Your task to perform on an android device: change the upload size in google photos Image 0: 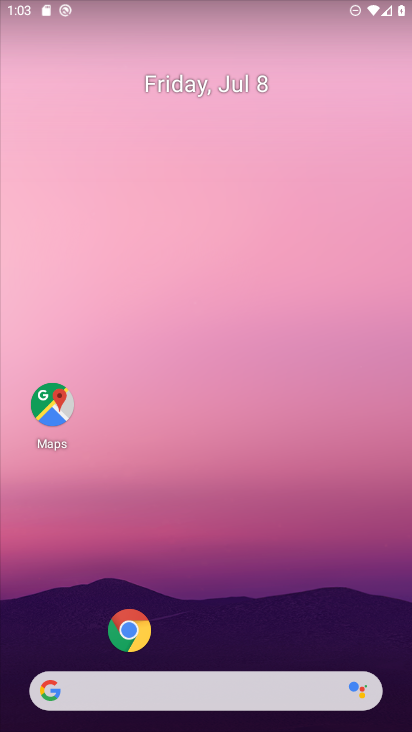
Step 0: press home button
Your task to perform on an android device: change the upload size in google photos Image 1: 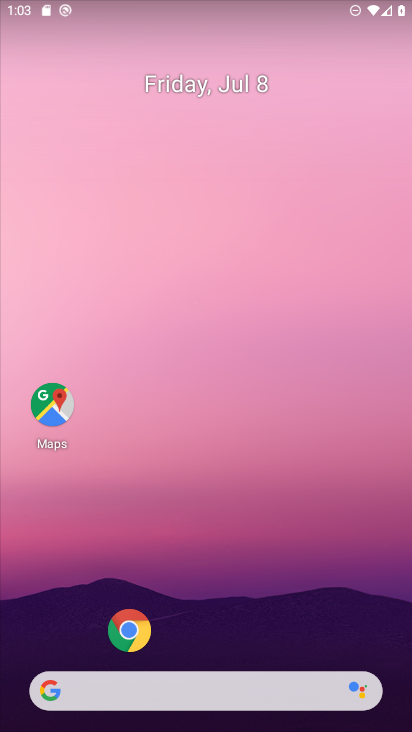
Step 1: drag from (309, 691) to (179, 43)
Your task to perform on an android device: change the upload size in google photos Image 2: 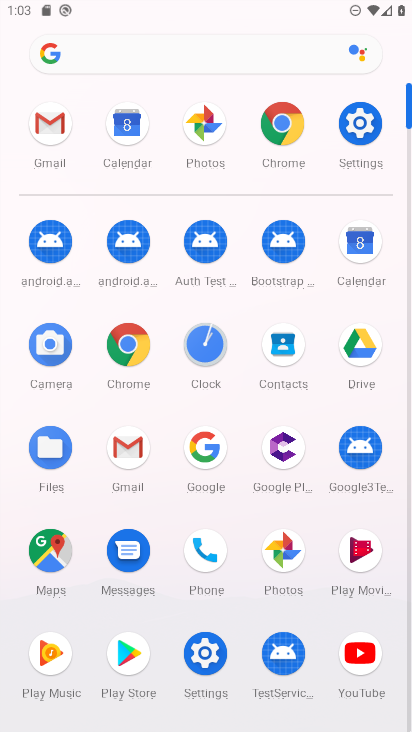
Step 2: click (278, 549)
Your task to perform on an android device: change the upload size in google photos Image 3: 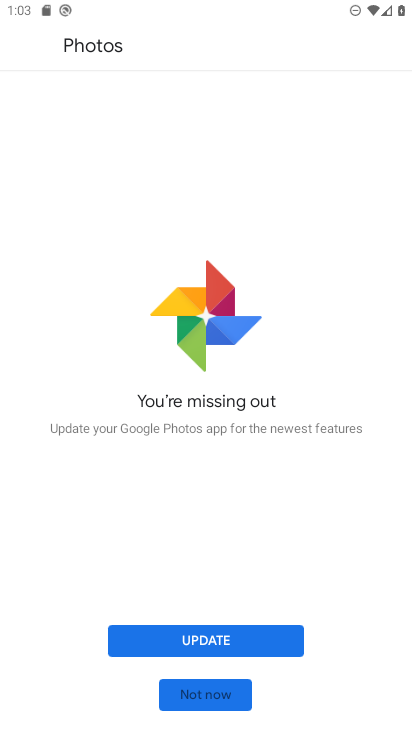
Step 3: click (234, 628)
Your task to perform on an android device: change the upload size in google photos Image 4: 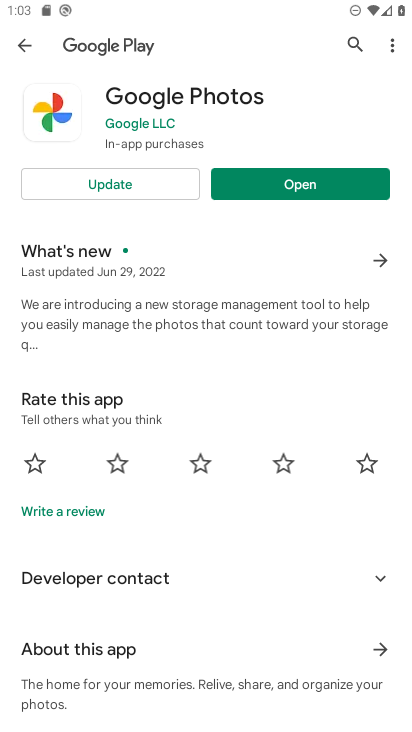
Step 4: click (113, 182)
Your task to perform on an android device: change the upload size in google photos Image 5: 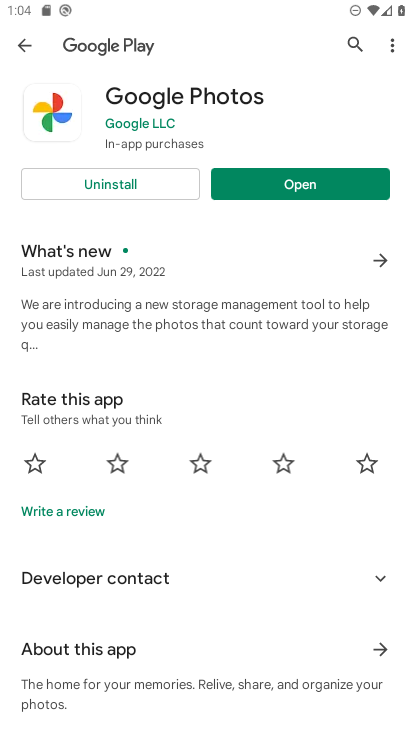
Step 5: click (307, 169)
Your task to perform on an android device: change the upload size in google photos Image 6: 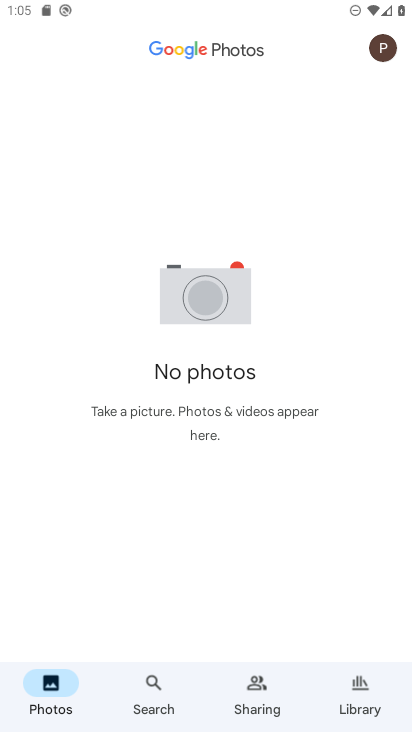
Step 6: click (377, 49)
Your task to perform on an android device: change the upload size in google photos Image 7: 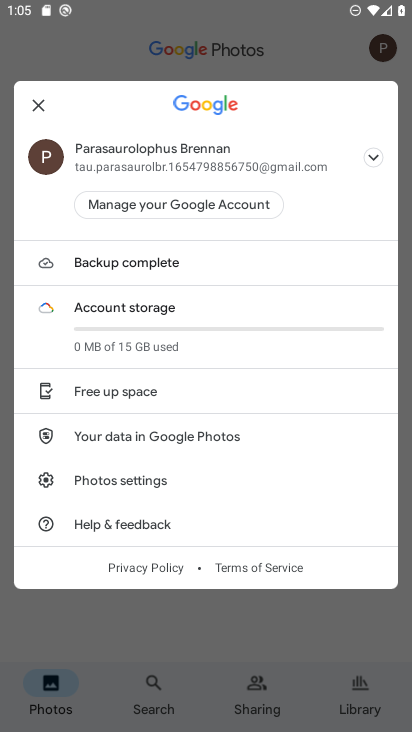
Step 7: click (131, 480)
Your task to perform on an android device: change the upload size in google photos Image 8: 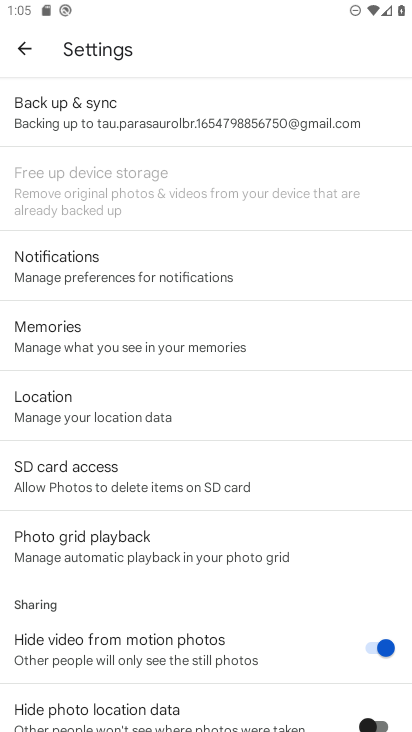
Step 8: click (219, 126)
Your task to perform on an android device: change the upload size in google photos Image 9: 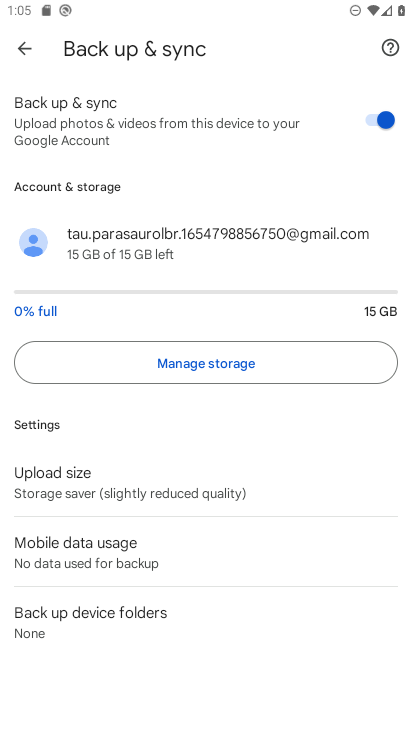
Step 9: click (116, 484)
Your task to perform on an android device: change the upload size in google photos Image 10: 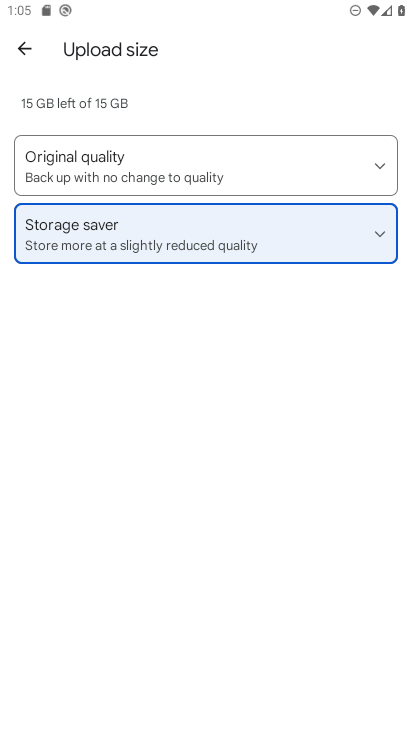
Step 10: click (150, 173)
Your task to perform on an android device: change the upload size in google photos Image 11: 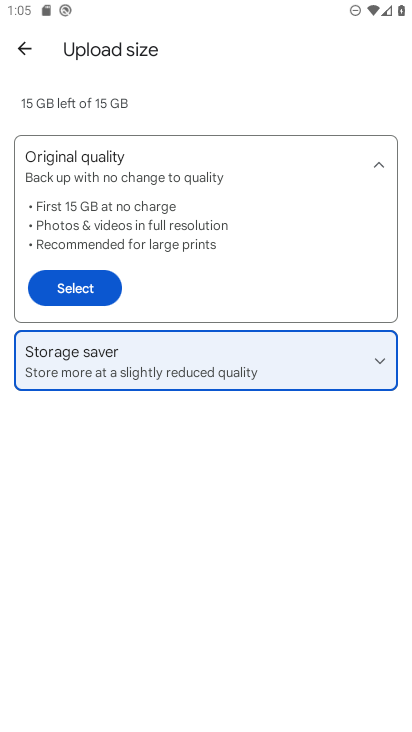
Step 11: click (79, 283)
Your task to perform on an android device: change the upload size in google photos Image 12: 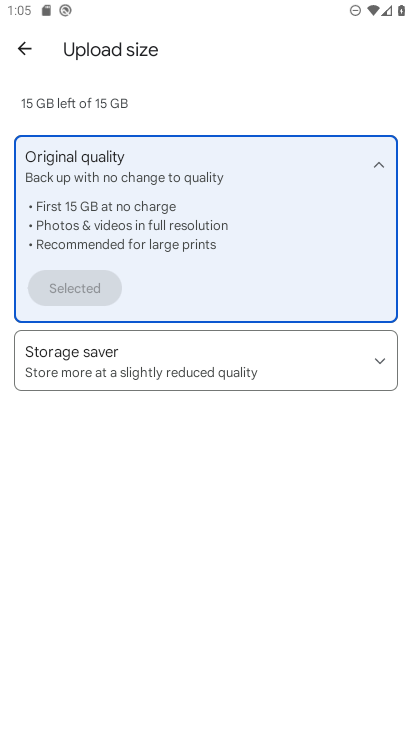
Step 12: task complete